Your task to perform on an android device: Check the weather Image 0: 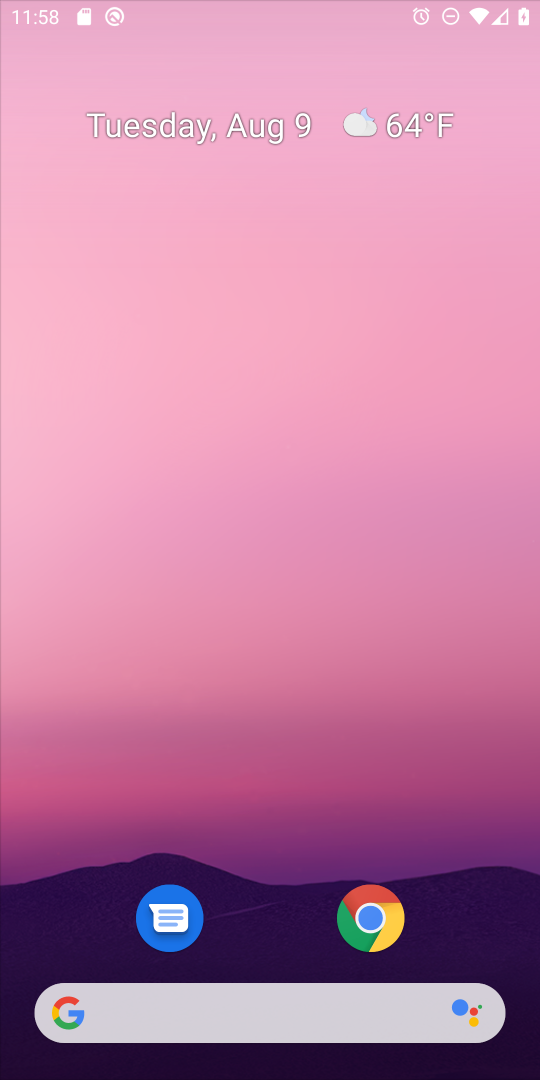
Step 0: drag from (227, 940) to (339, 207)
Your task to perform on an android device: Check the weather Image 1: 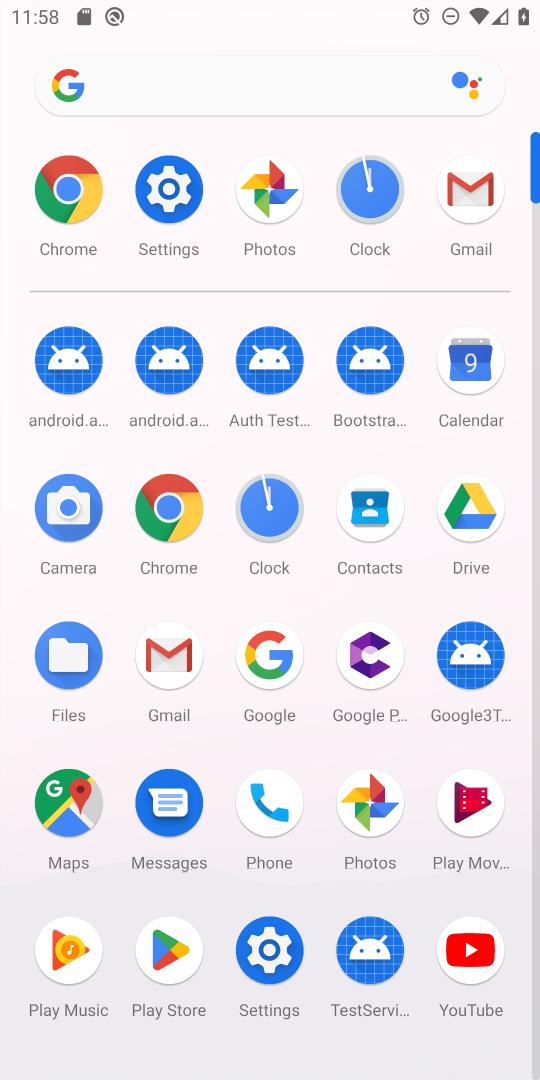
Step 1: click (169, 508)
Your task to perform on an android device: Check the weather Image 2: 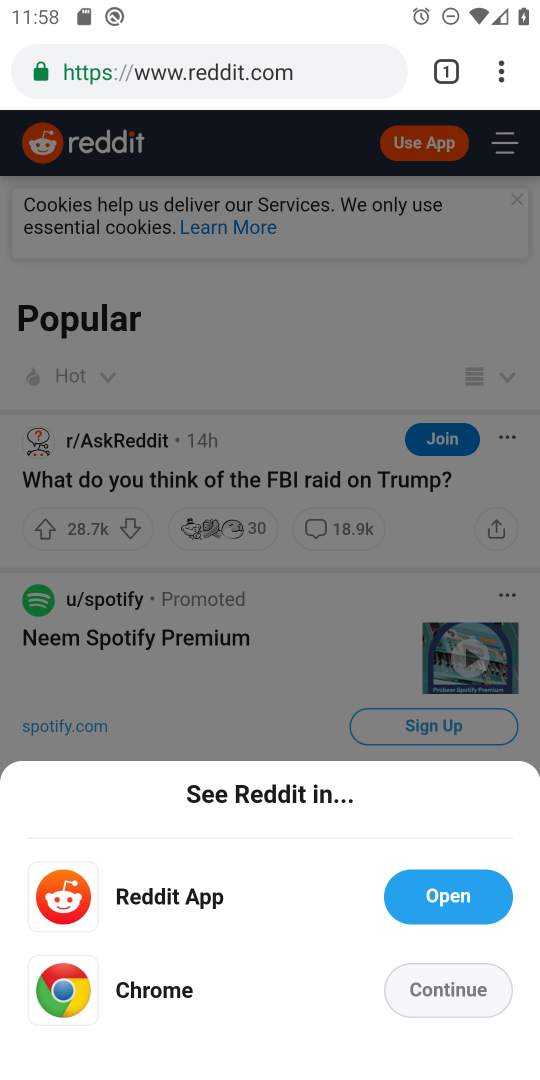
Step 2: click (267, 81)
Your task to perform on an android device: Check the weather Image 3: 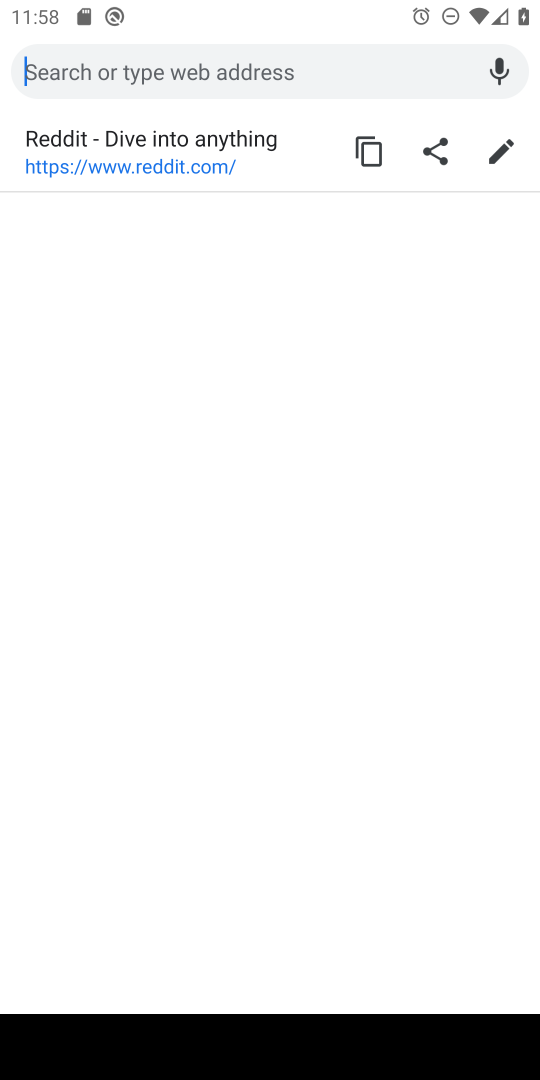
Step 3: type "weather"
Your task to perform on an android device: Check the weather Image 4: 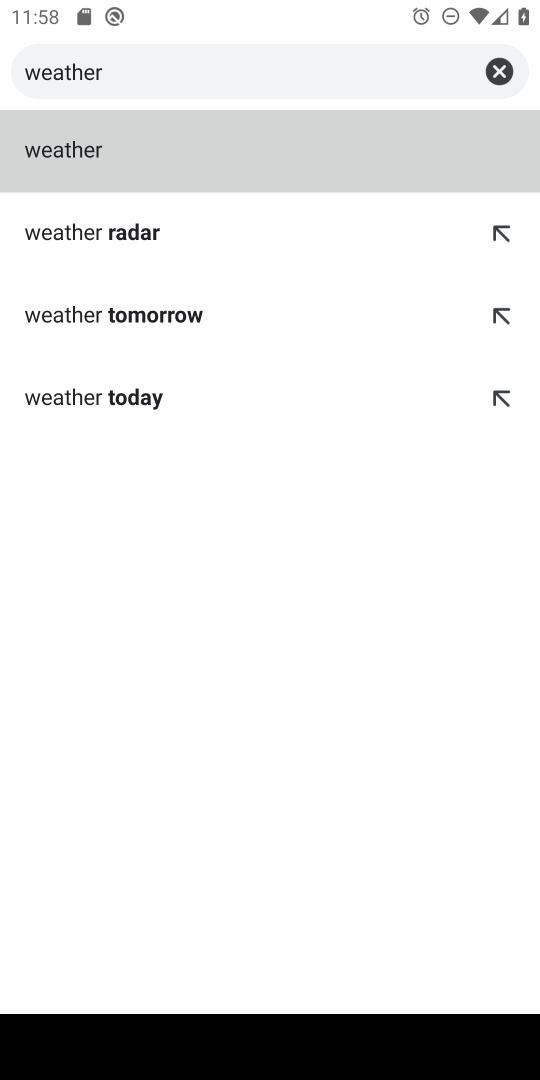
Step 4: click (167, 147)
Your task to perform on an android device: Check the weather Image 5: 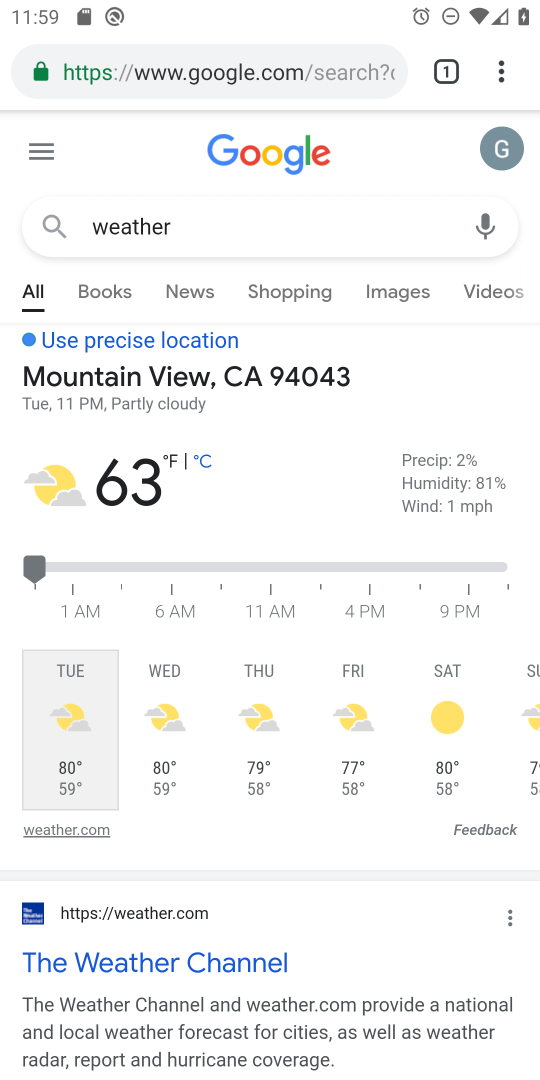
Step 5: task complete